Your task to perform on an android device: Open Google Chrome and open the bookmarks view Image 0: 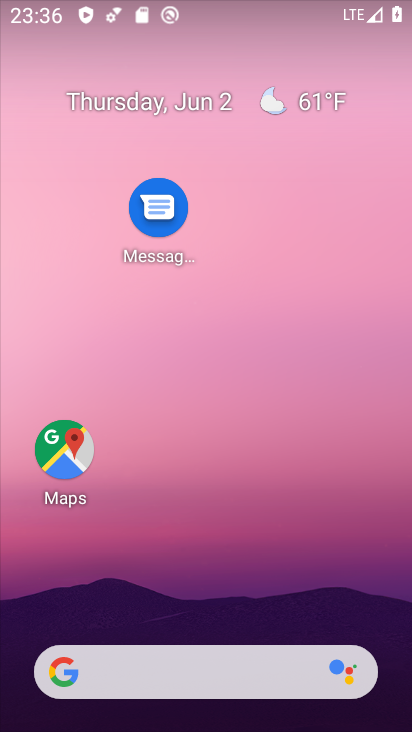
Step 0: drag from (202, 641) to (288, 9)
Your task to perform on an android device: Open Google Chrome and open the bookmarks view Image 1: 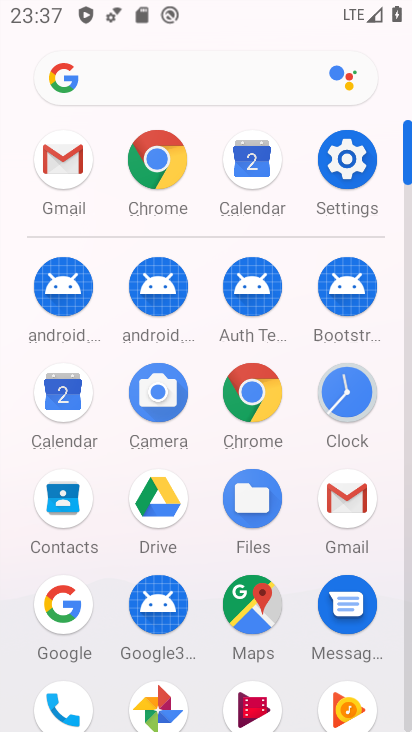
Step 1: click (245, 396)
Your task to perform on an android device: Open Google Chrome and open the bookmarks view Image 2: 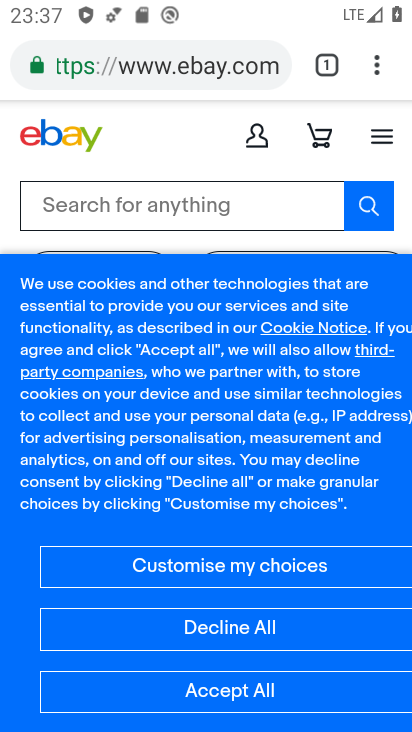
Step 2: task complete